Your task to perform on an android device: empty trash in google photos Image 0: 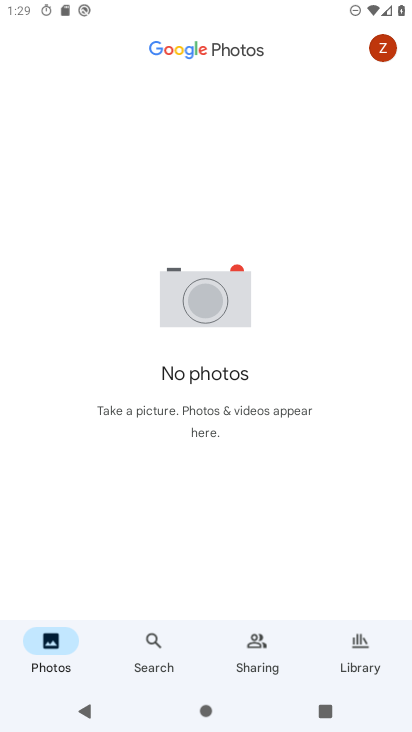
Step 0: click (356, 672)
Your task to perform on an android device: empty trash in google photos Image 1: 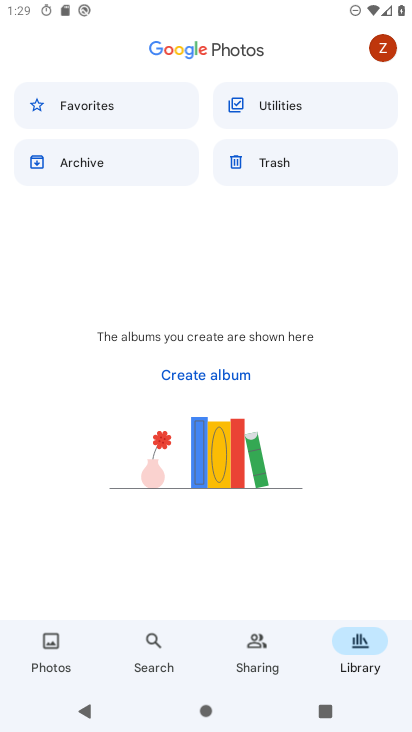
Step 1: click (307, 163)
Your task to perform on an android device: empty trash in google photos Image 2: 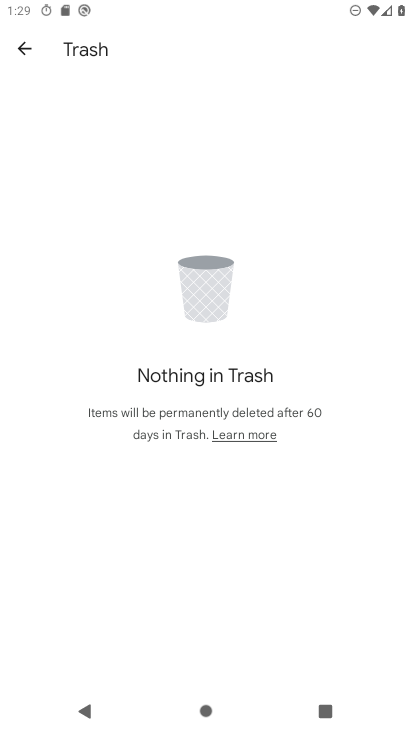
Step 2: task complete